Your task to perform on an android device: open app "Booking.com: Hotels and more" Image 0: 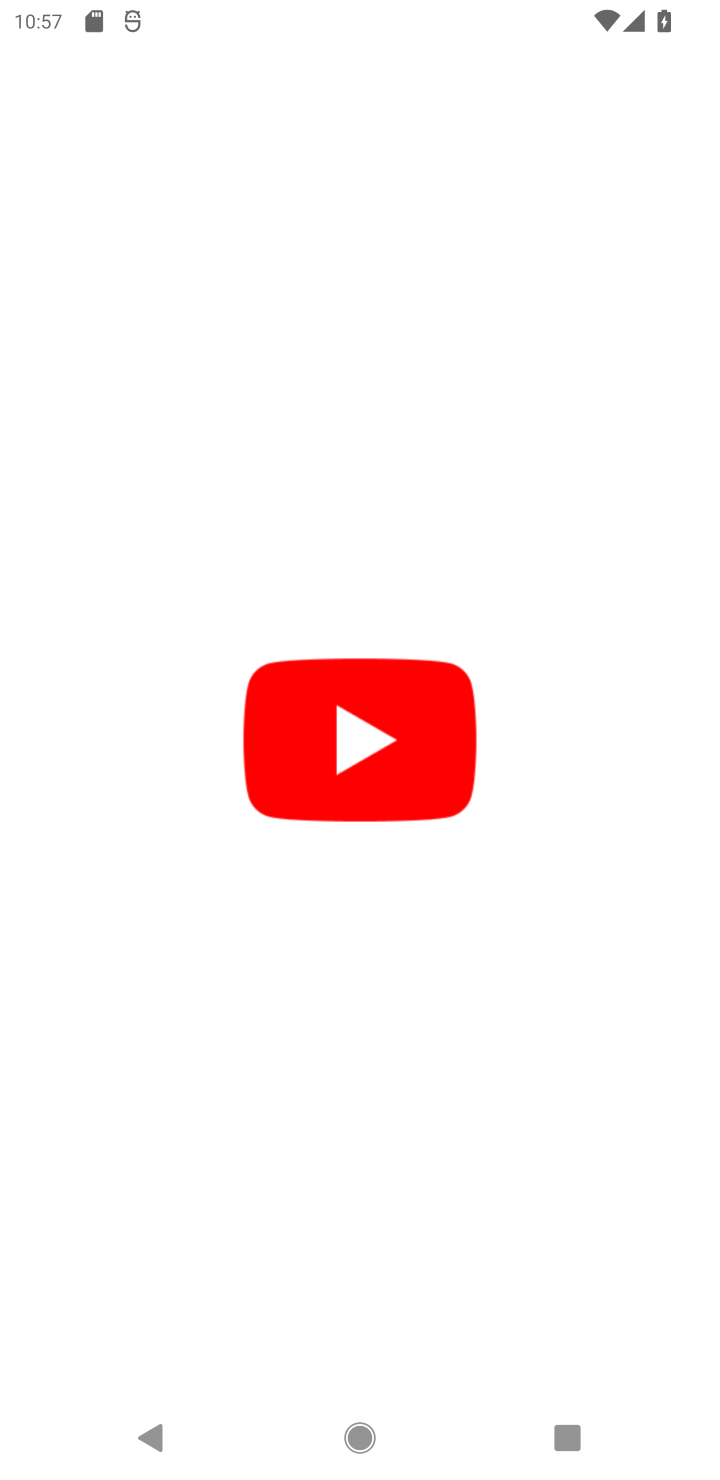
Step 0: click (53, 99)
Your task to perform on an android device: open app "Booking.com: Hotels and more" Image 1: 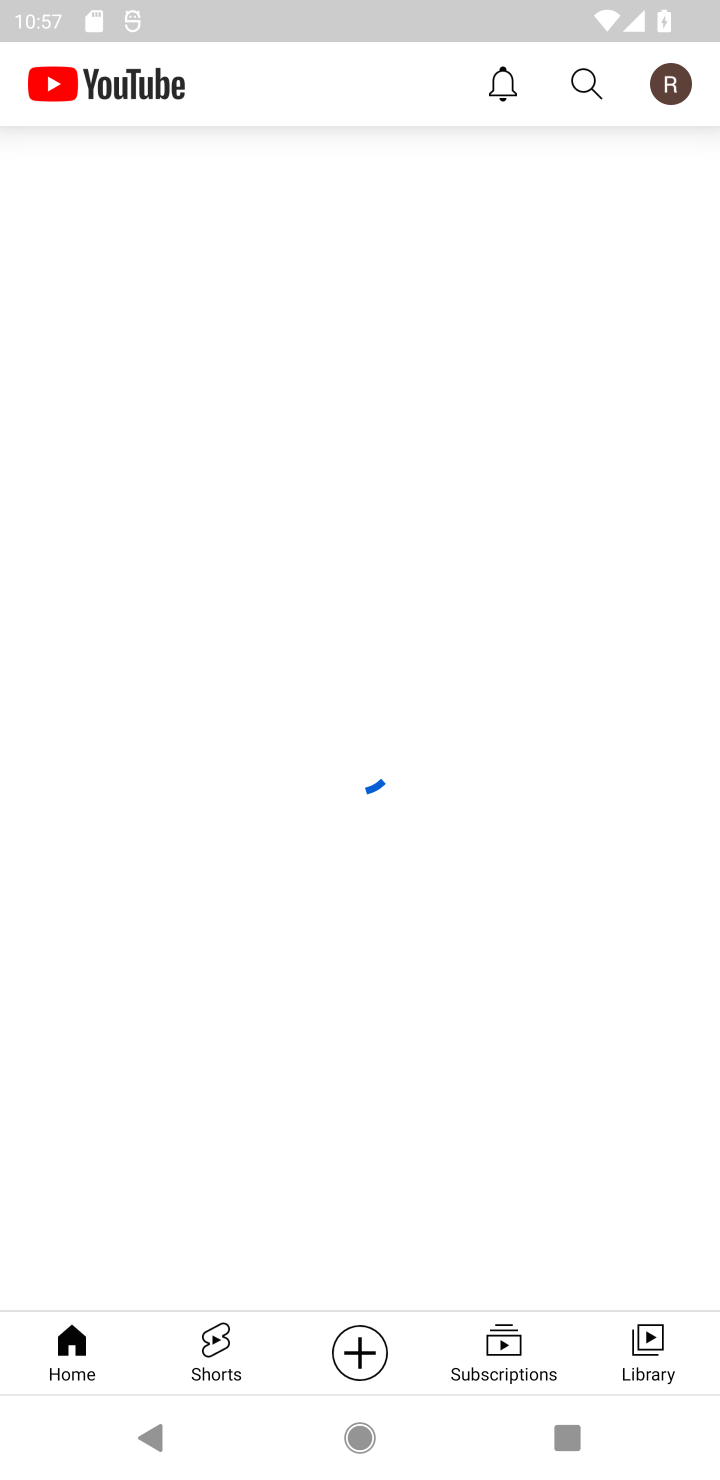
Step 1: press home button
Your task to perform on an android device: open app "Booking.com: Hotels and more" Image 2: 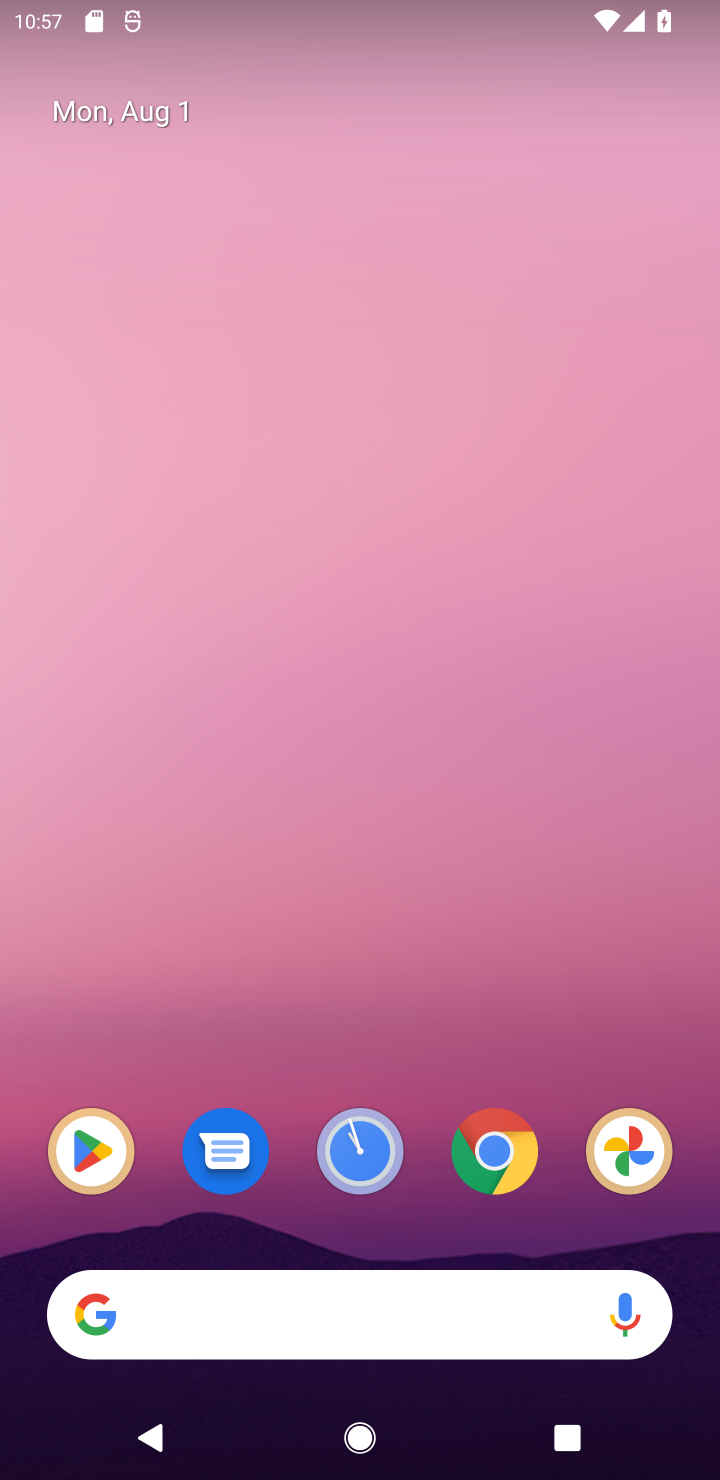
Step 2: click (82, 1161)
Your task to perform on an android device: open app "Booking.com: Hotels and more" Image 3: 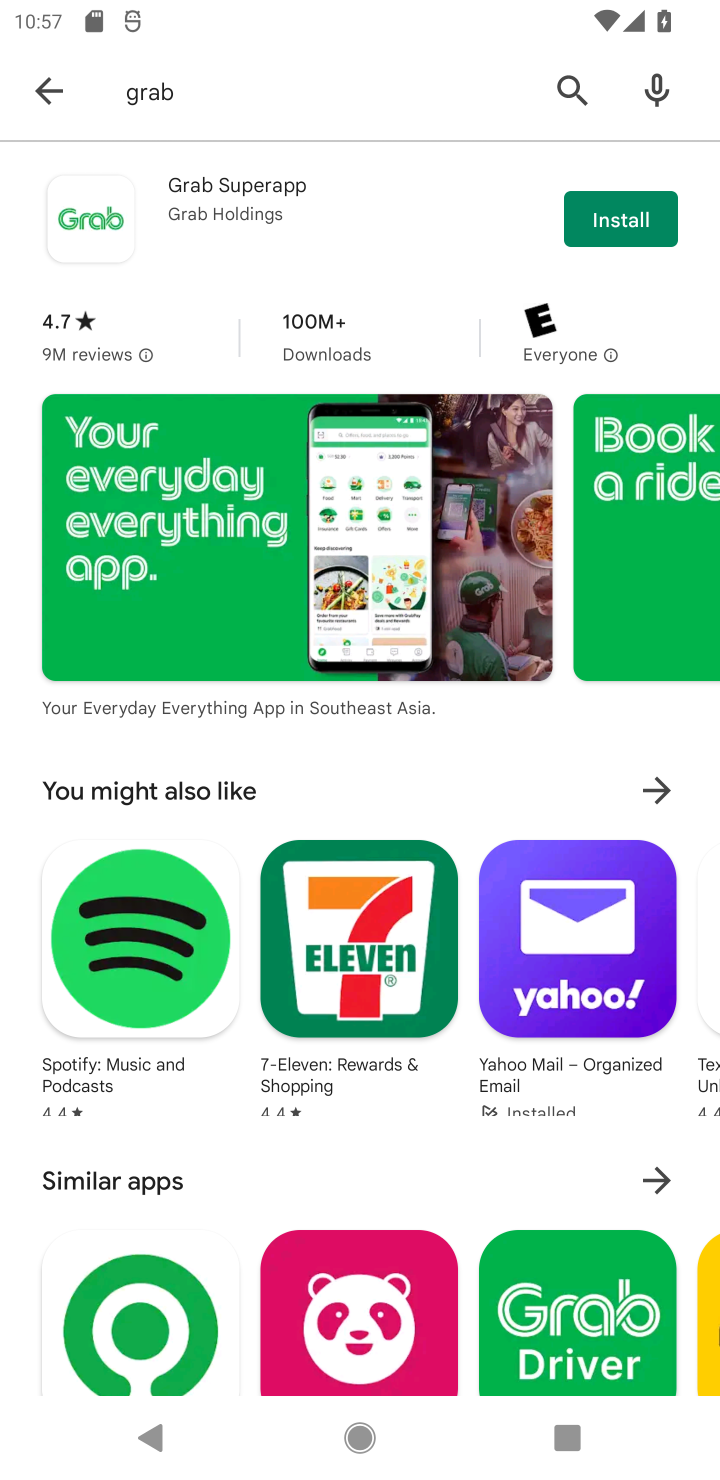
Step 3: click (59, 78)
Your task to perform on an android device: open app "Booking.com: Hotels and more" Image 4: 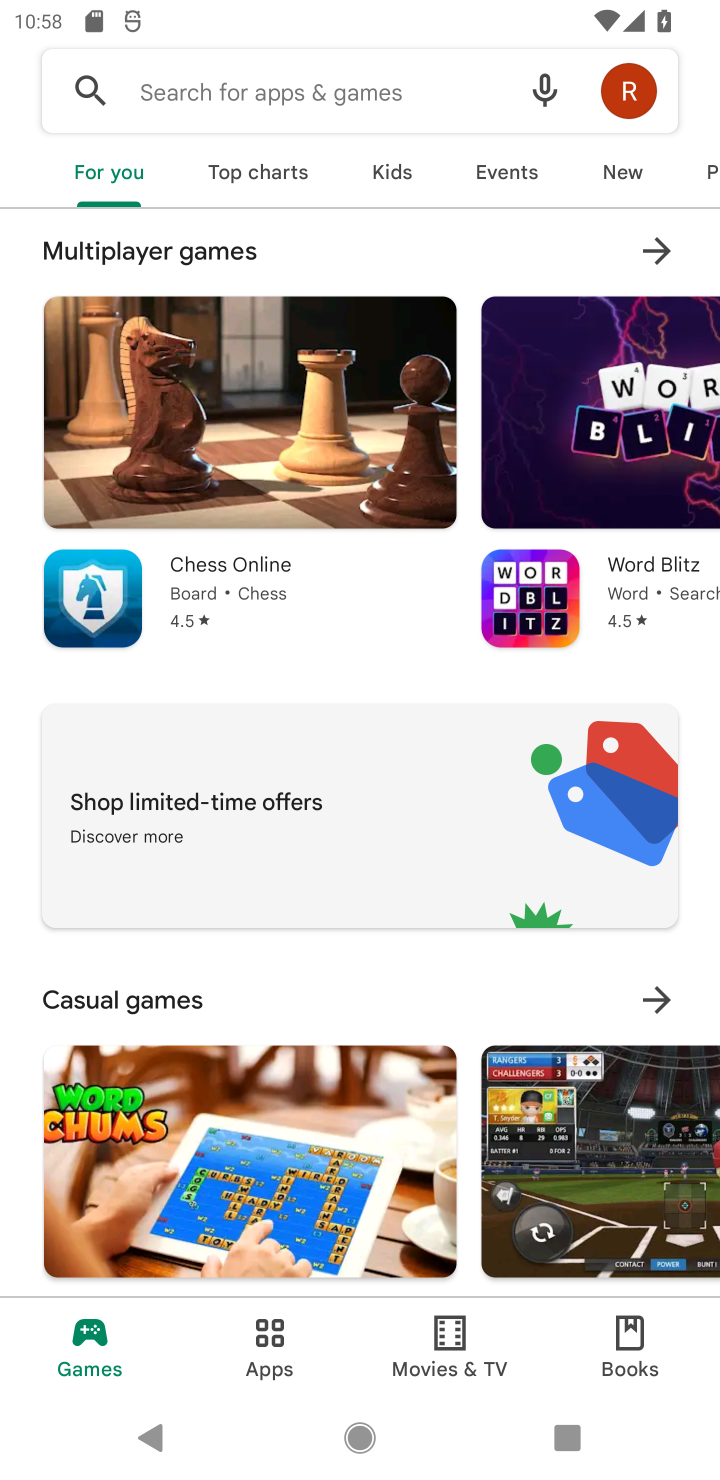
Step 4: click (213, 97)
Your task to perform on an android device: open app "Booking.com: Hotels and more" Image 5: 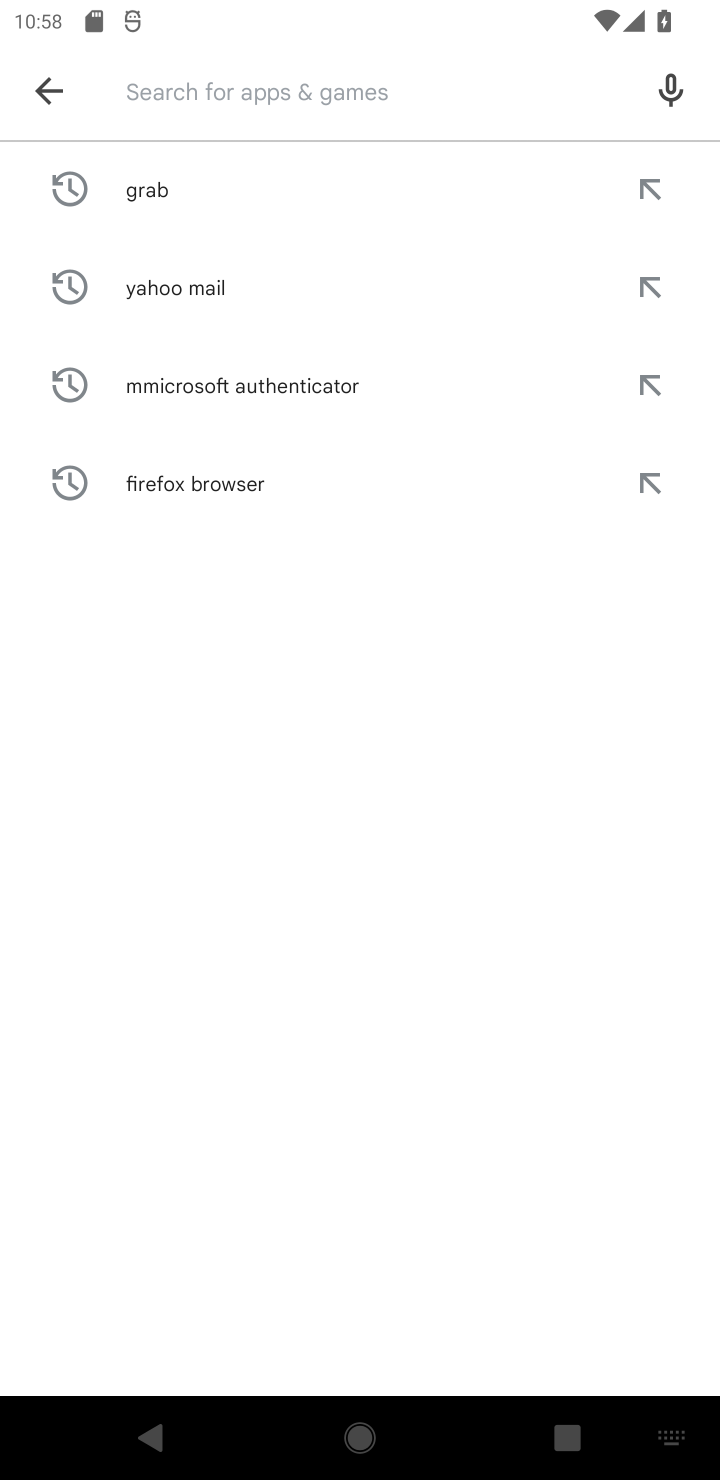
Step 5: type "Booking.com: Hotels and more"
Your task to perform on an android device: open app "Booking.com: Hotels and more" Image 6: 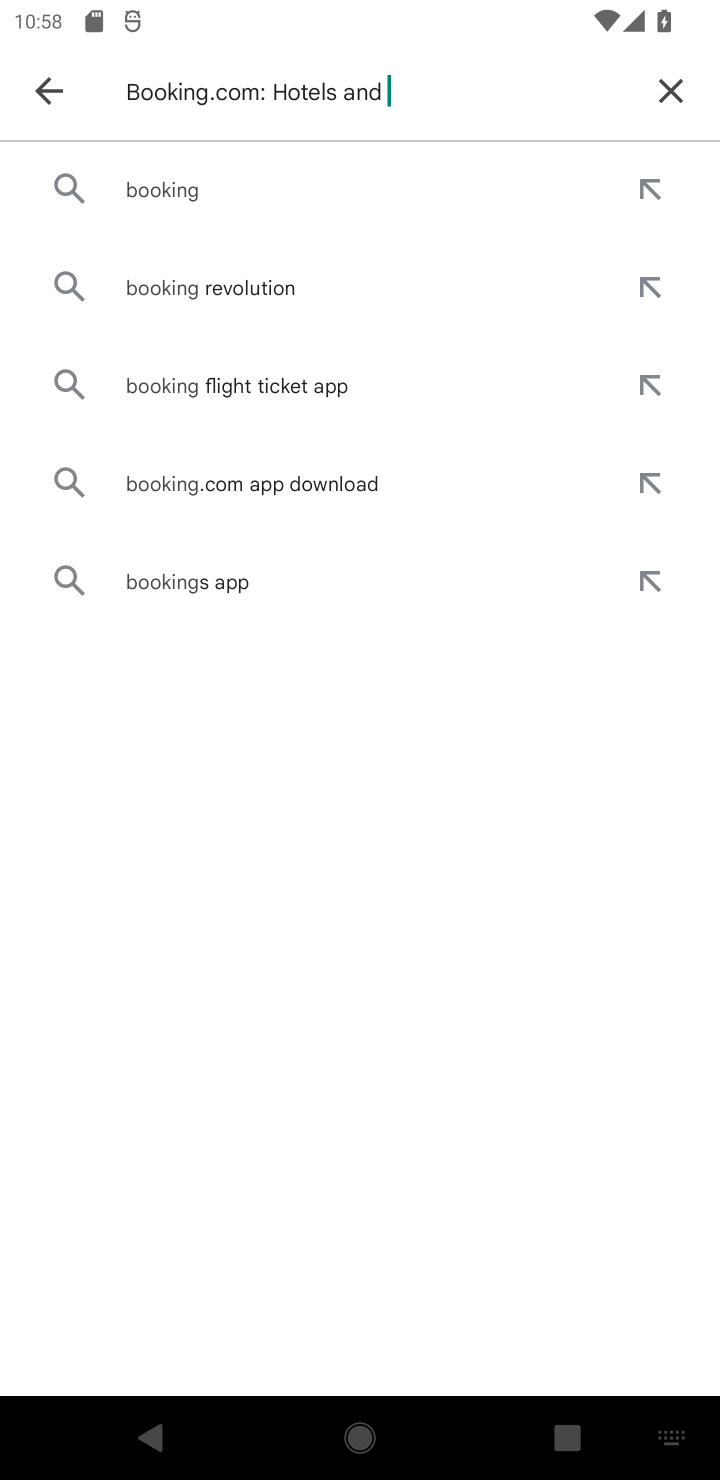
Step 6: type ""
Your task to perform on an android device: open app "Booking.com: Hotels and more" Image 7: 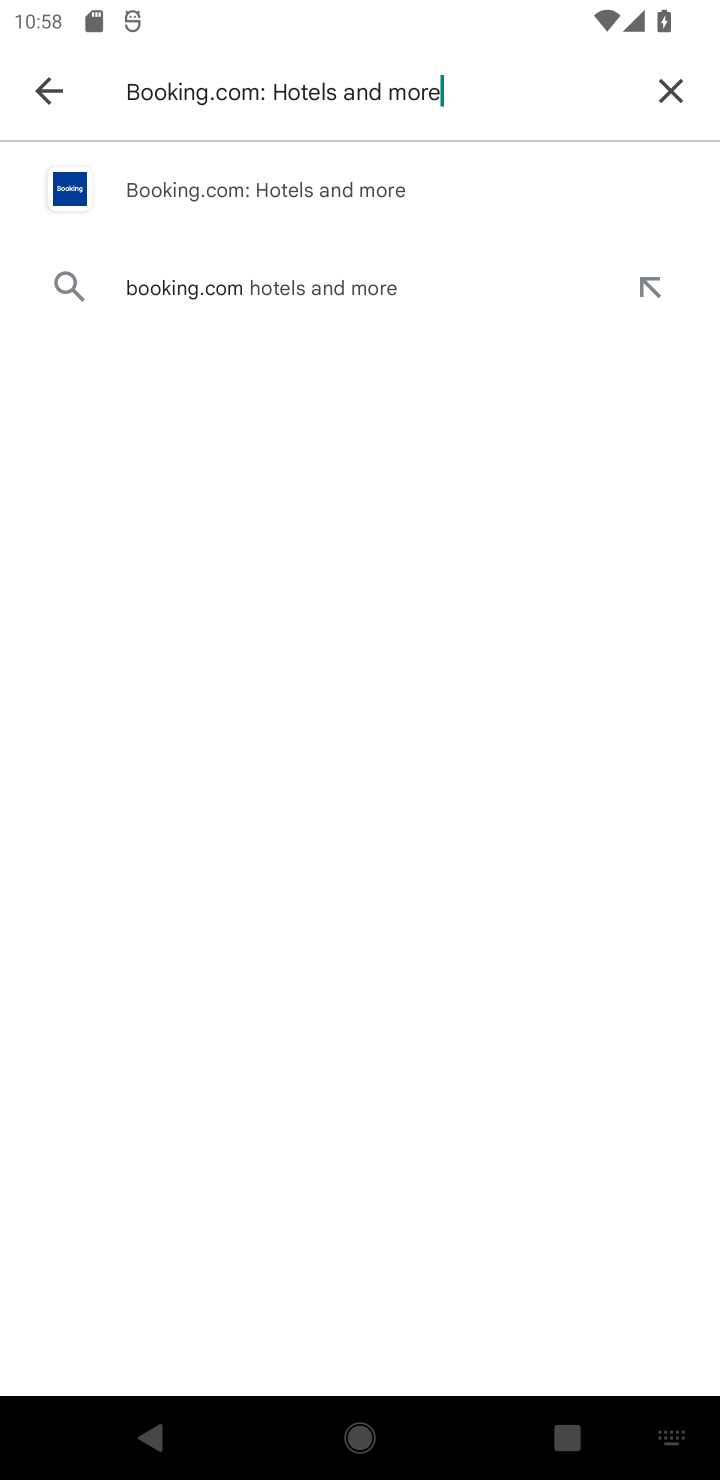
Step 7: click (169, 153)
Your task to perform on an android device: open app "Booking.com: Hotels and more" Image 8: 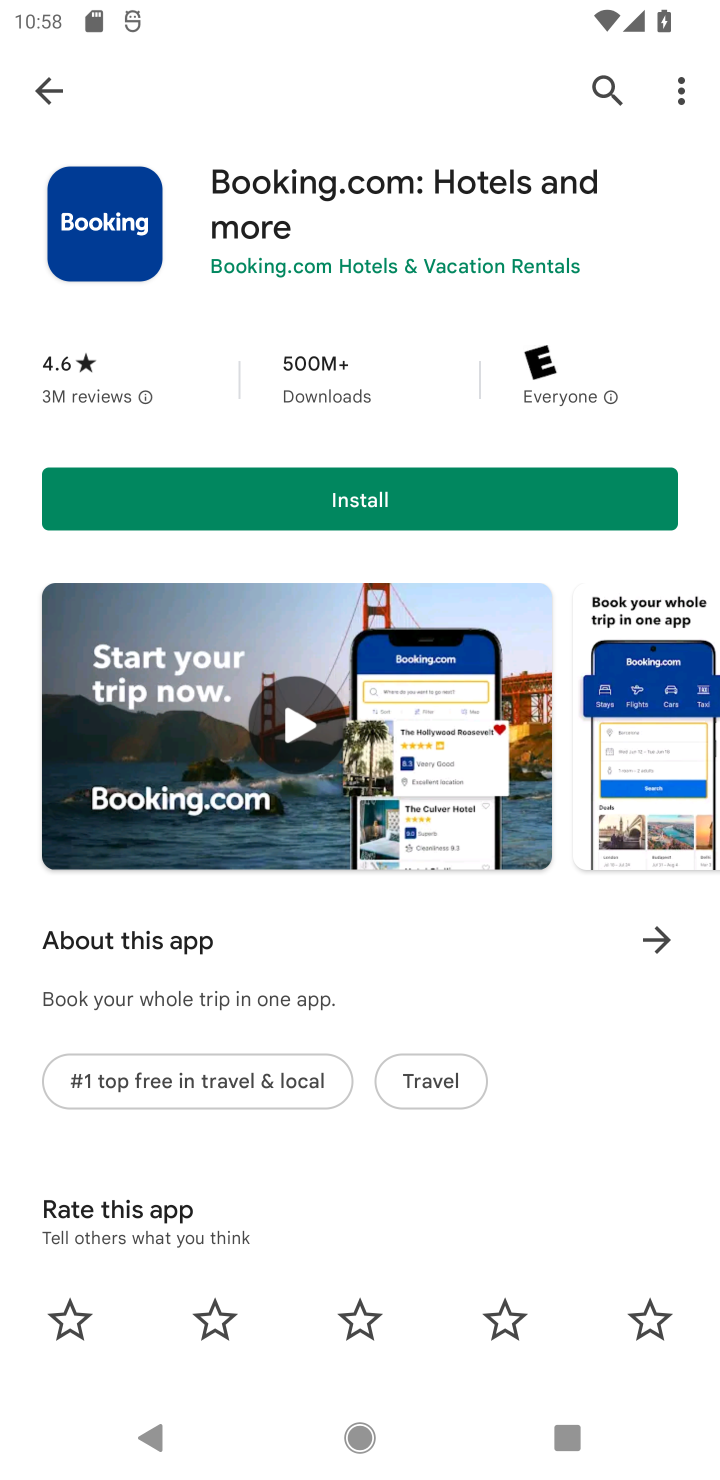
Step 8: task complete